Your task to perform on an android device: open app "Facebook" (install if not already installed), go to login, and select forgot password Image 0: 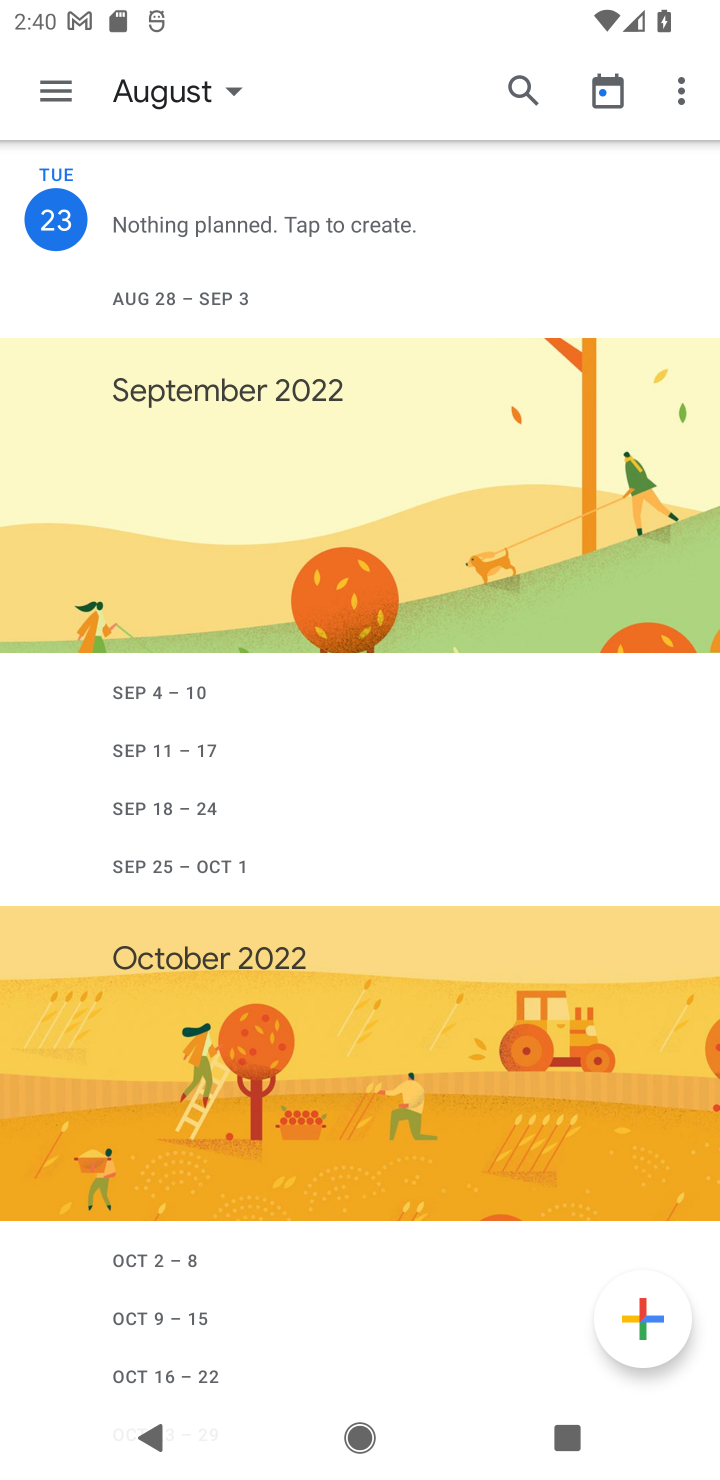
Step 0: press home button
Your task to perform on an android device: open app "Facebook" (install if not already installed), go to login, and select forgot password Image 1: 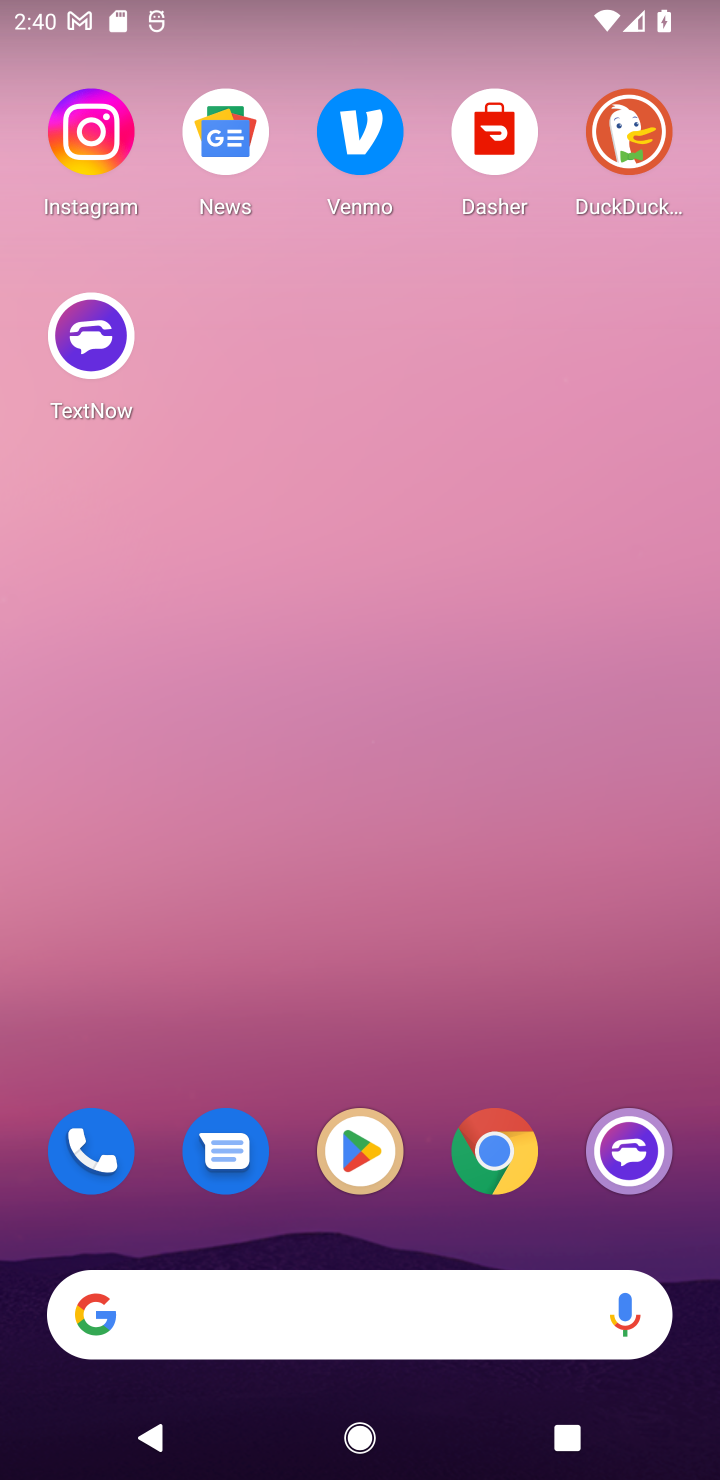
Step 1: click (368, 1140)
Your task to perform on an android device: open app "Facebook" (install if not already installed), go to login, and select forgot password Image 2: 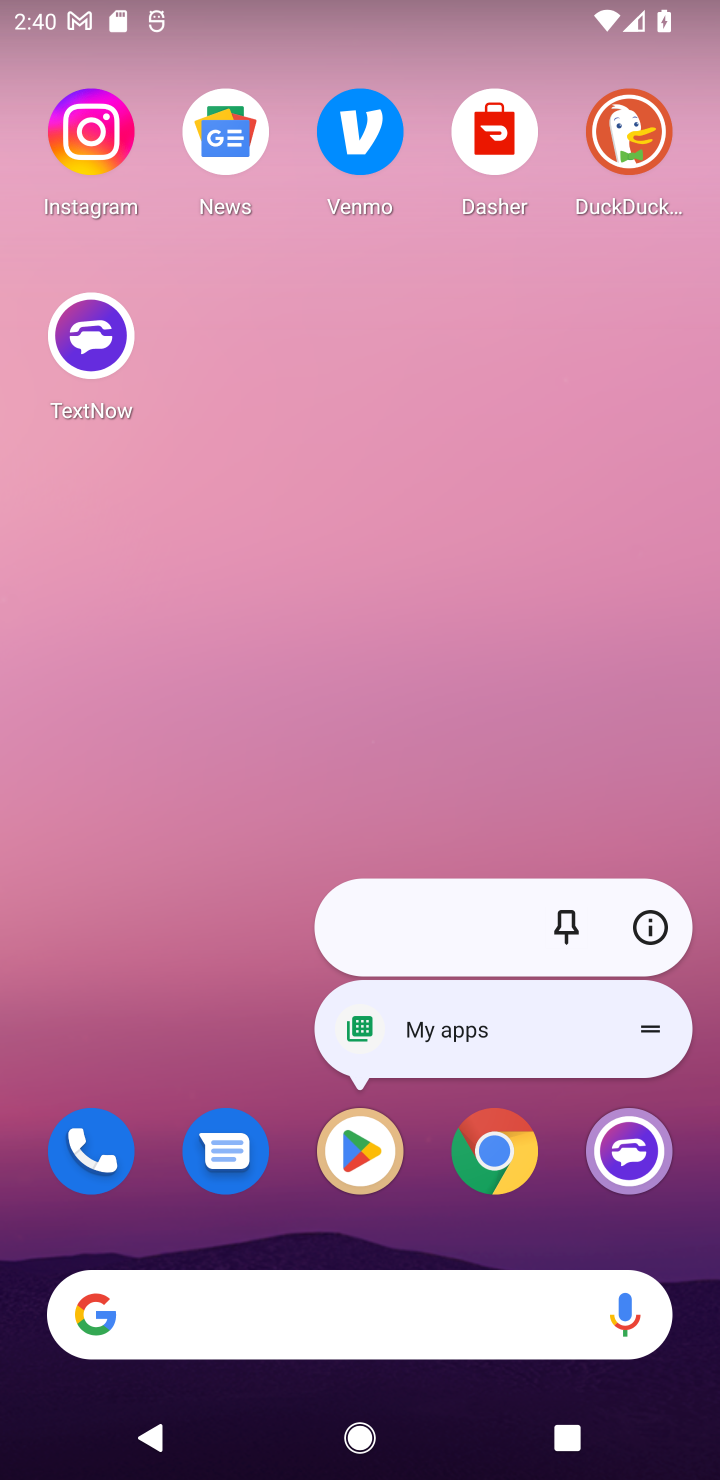
Step 2: click (366, 1141)
Your task to perform on an android device: open app "Facebook" (install if not already installed), go to login, and select forgot password Image 3: 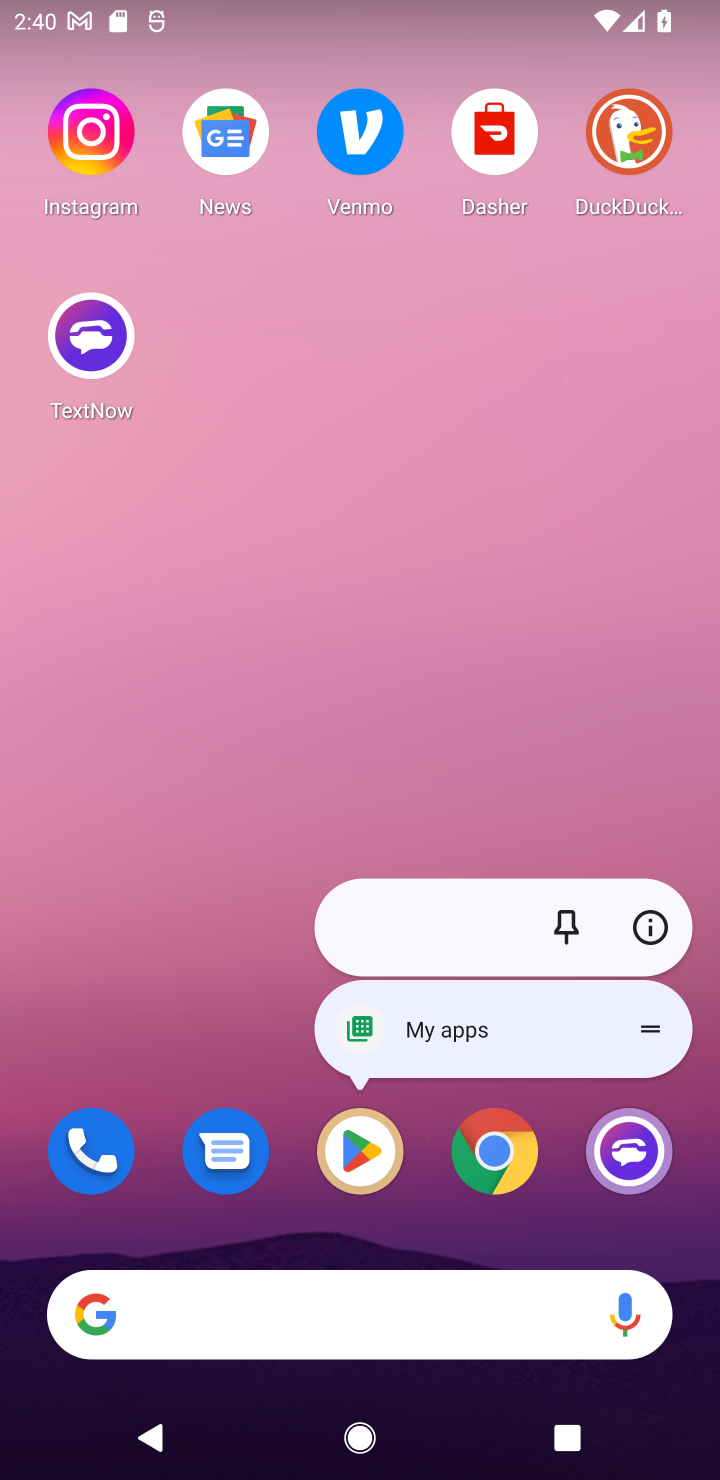
Step 3: click (356, 1149)
Your task to perform on an android device: open app "Facebook" (install if not already installed), go to login, and select forgot password Image 4: 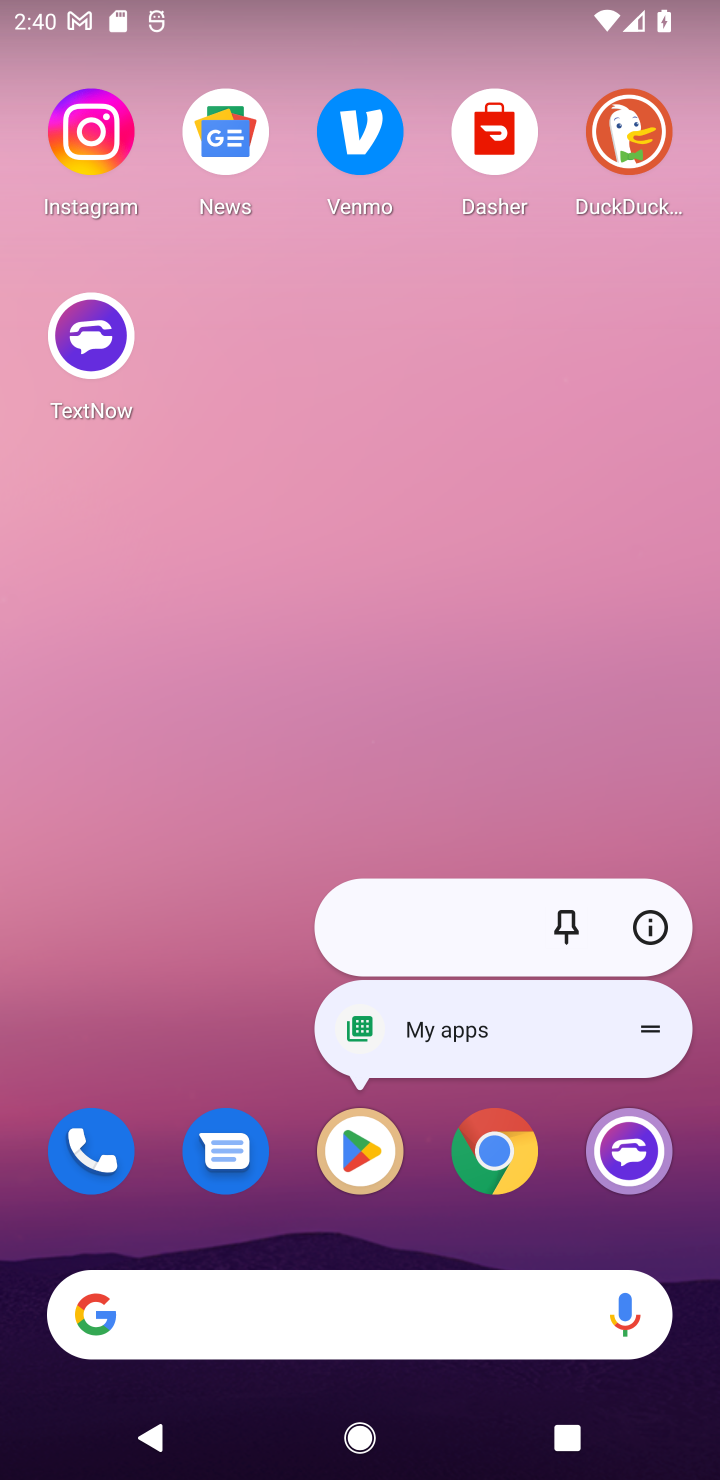
Step 4: click (356, 1153)
Your task to perform on an android device: open app "Facebook" (install if not already installed), go to login, and select forgot password Image 5: 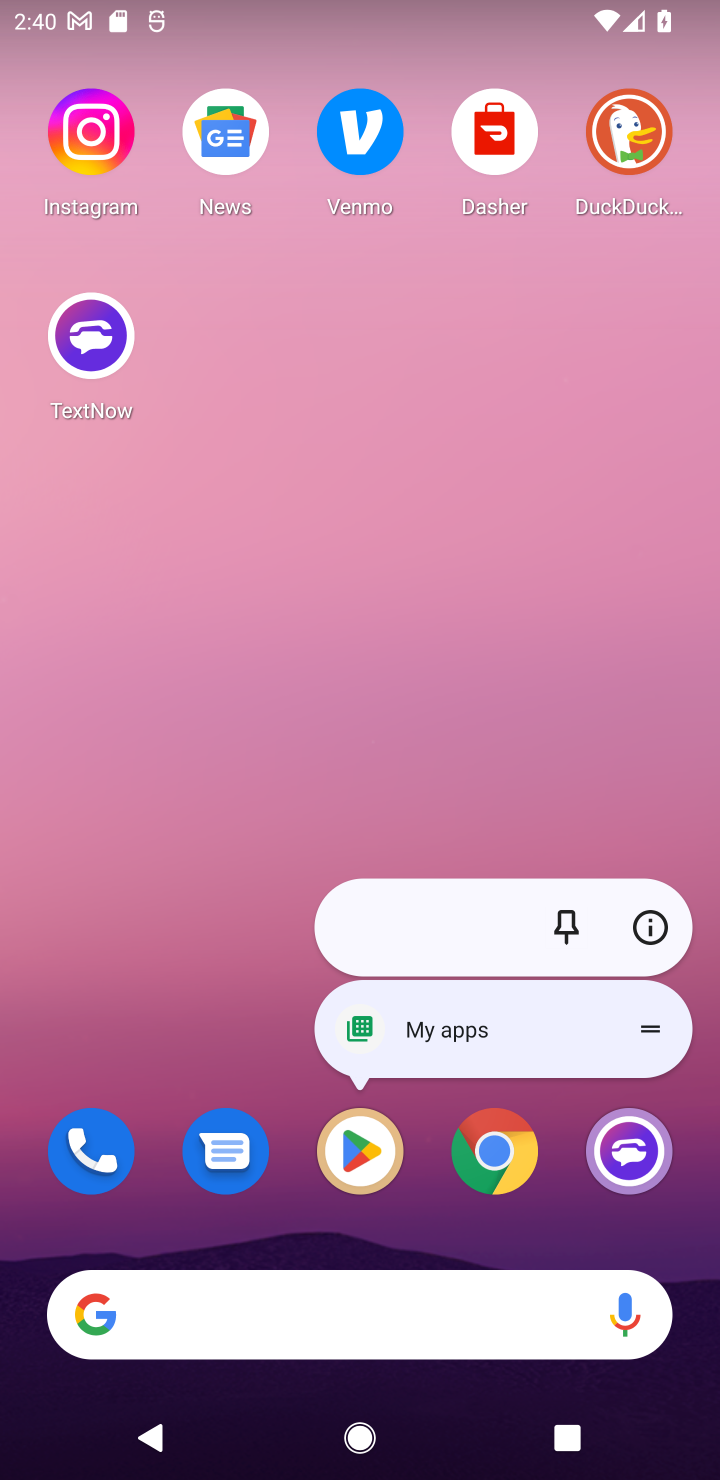
Step 5: click (356, 1153)
Your task to perform on an android device: open app "Facebook" (install if not already installed), go to login, and select forgot password Image 6: 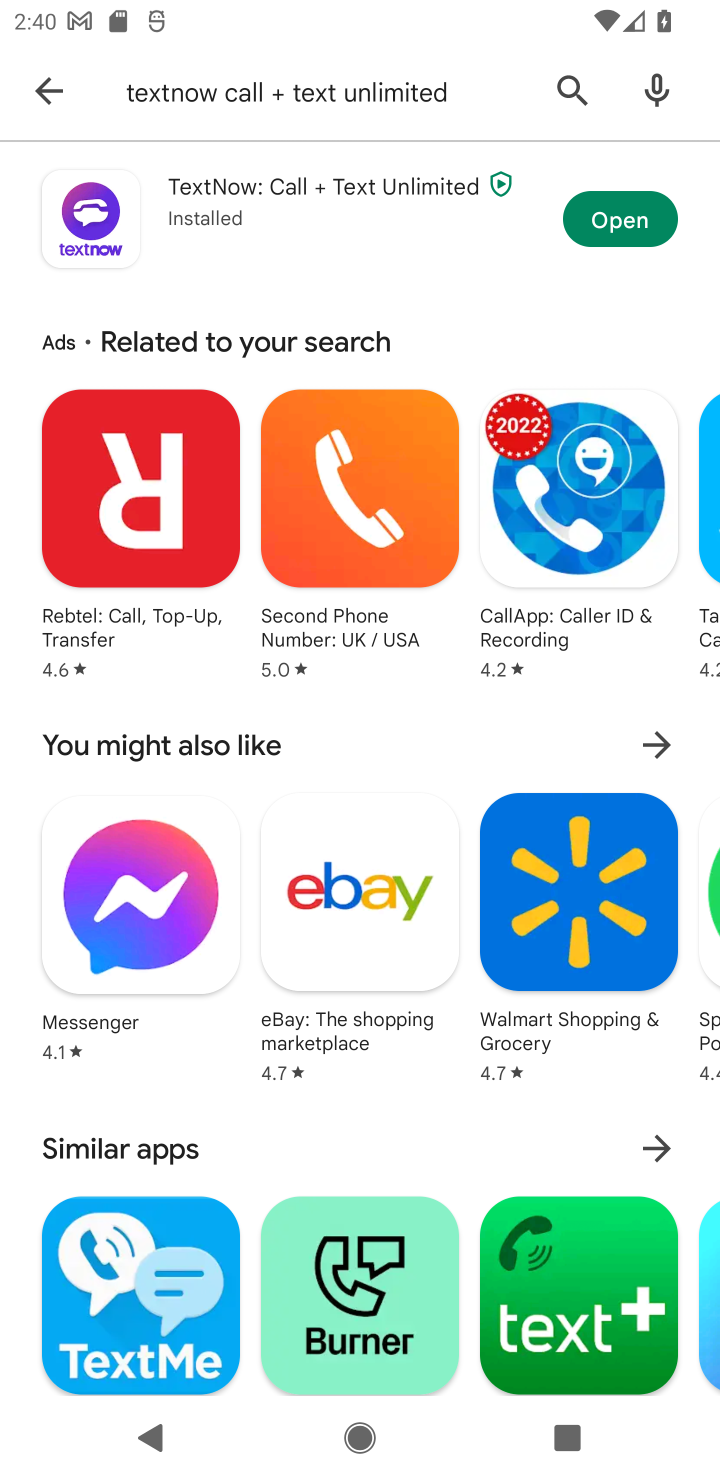
Step 6: click (560, 83)
Your task to perform on an android device: open app "Facebook" (install if not already installed), go to login, and select forgot password Image 7: 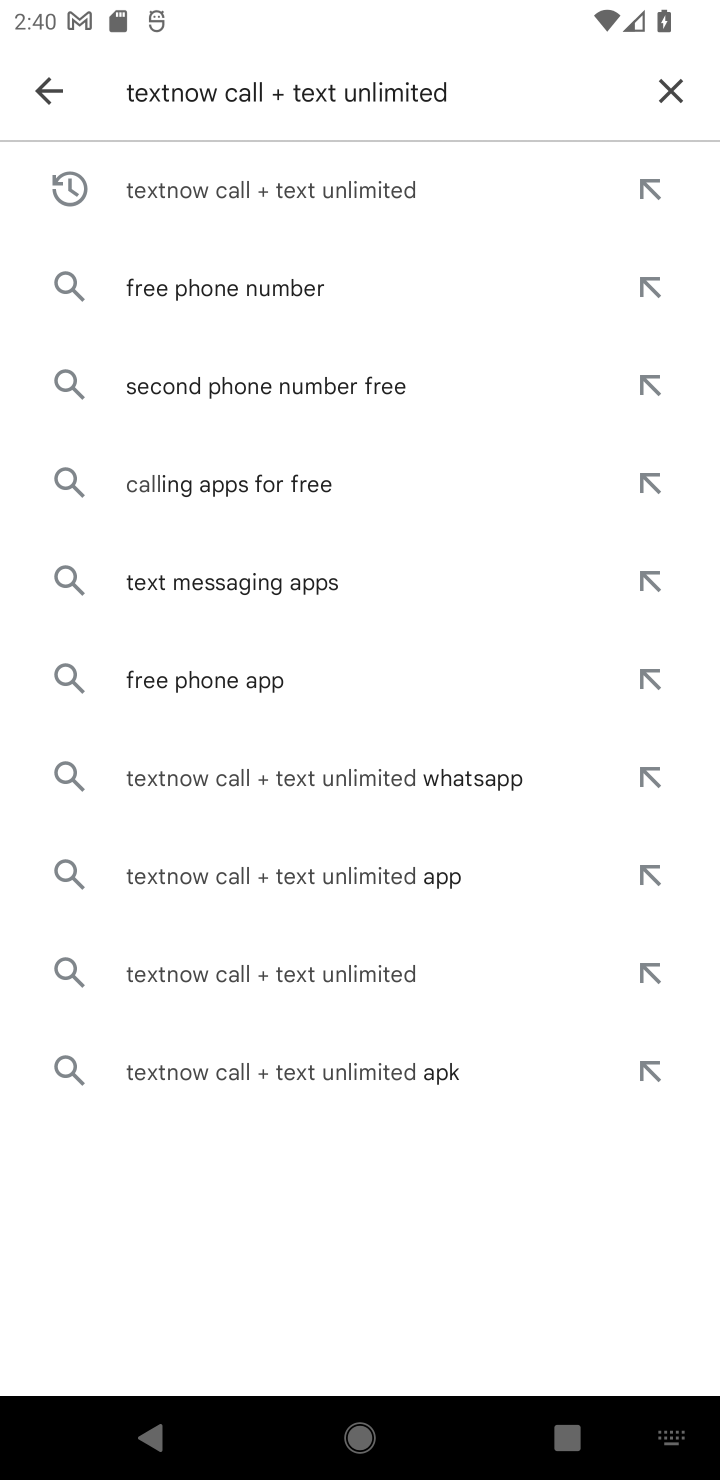
Step 7: click (676, 75)
Your task to perform on an android device: open app "Facebook" (install if not already installed), go to login, and select forgot password Image 8: 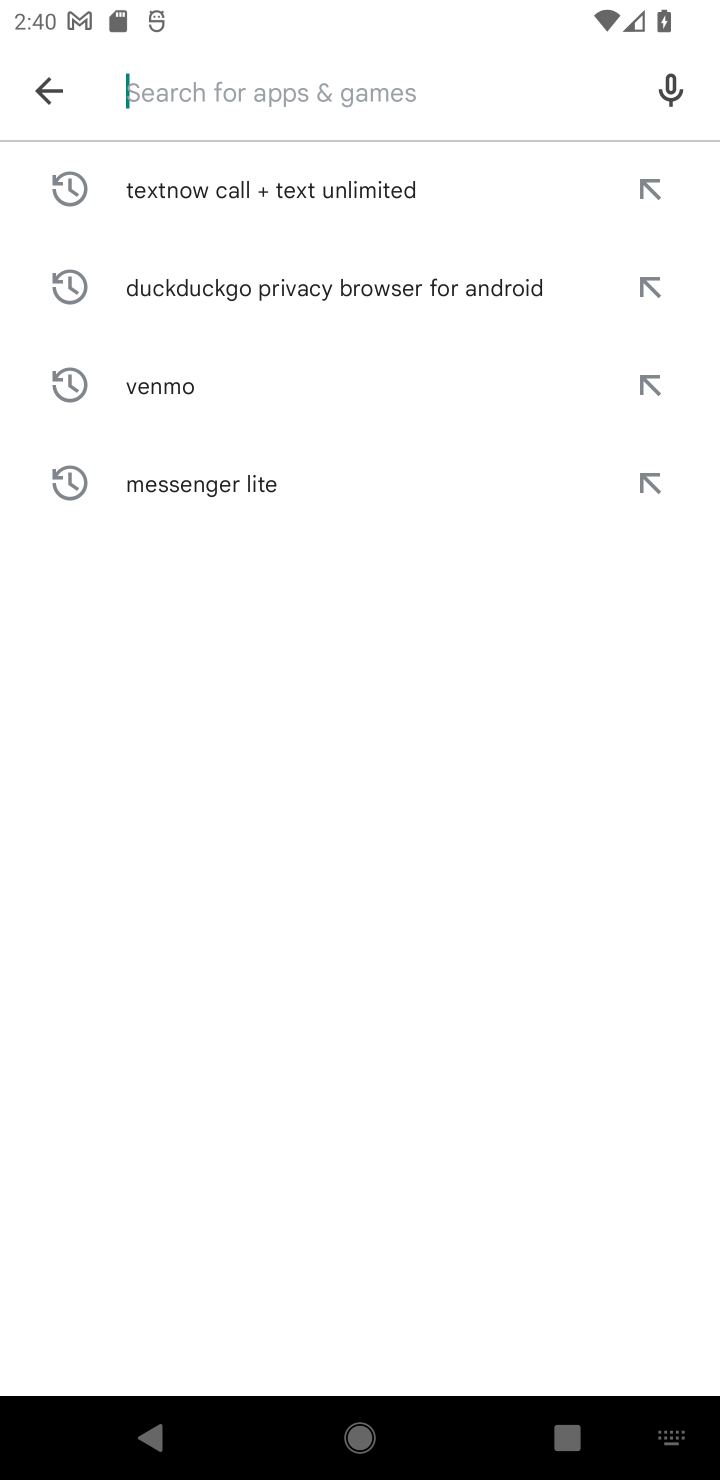
Step 8: type "Facebook"
Your task to perform on an android device: open app "Facebook" (install if not already installed), go to login, and select forgot password Image 9: 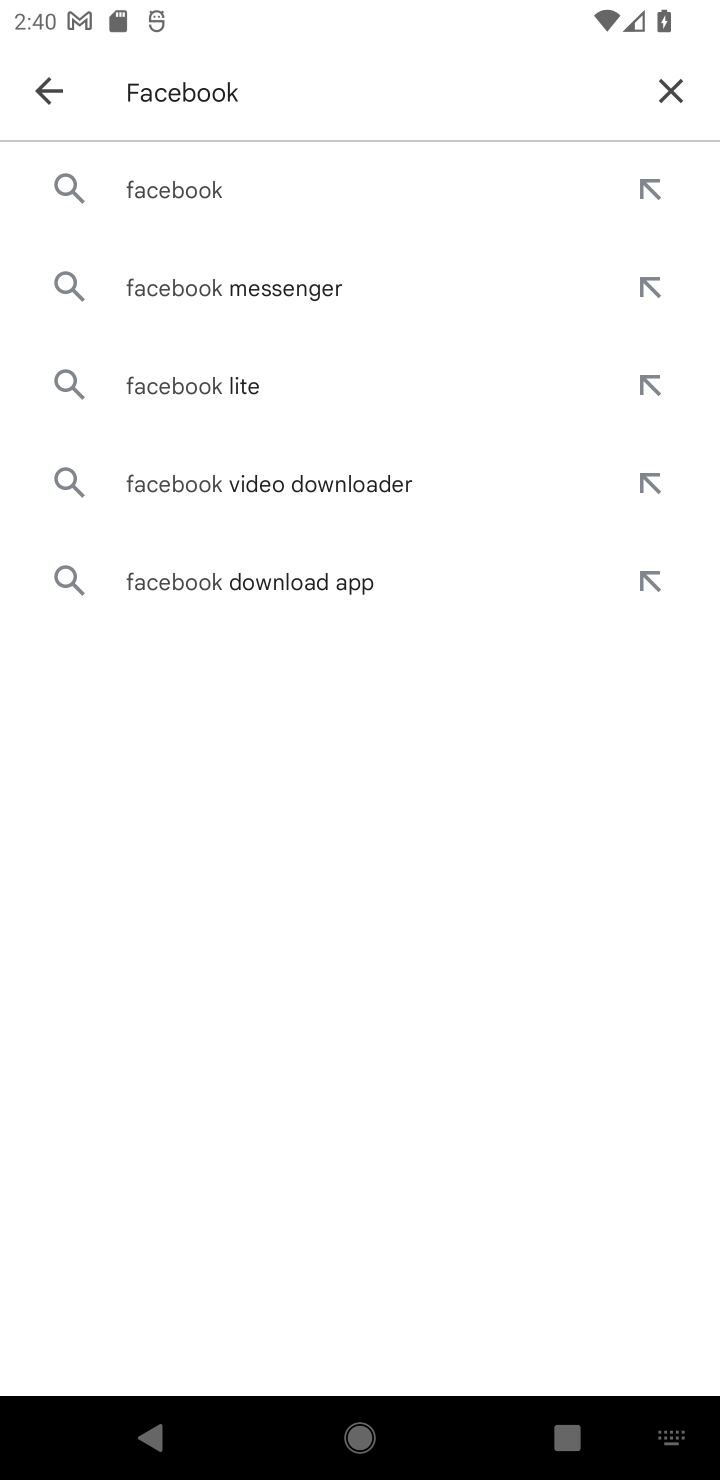
Step 9: click (173, 182)
Your task to perform on an android device: open app "Facebook" (install if not already installed), go to login, and select forgot password Image 10: 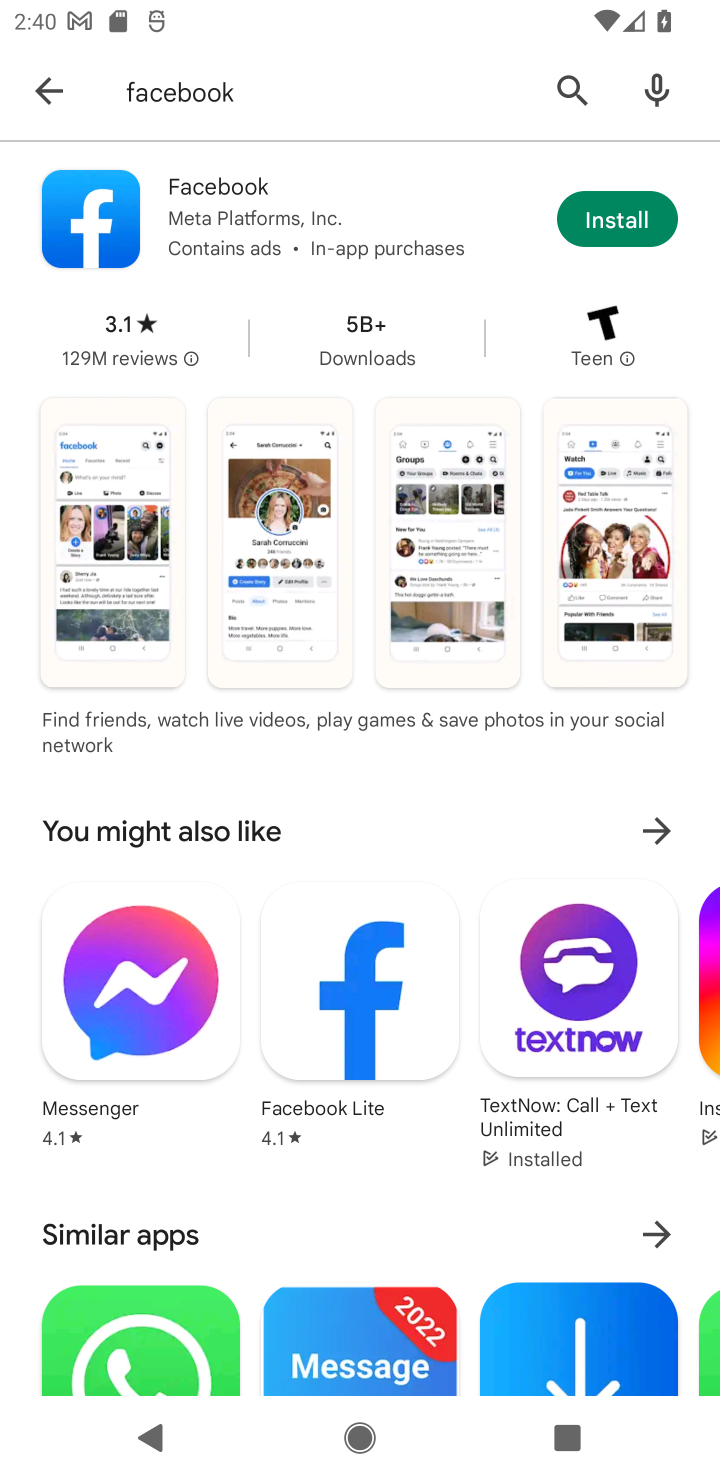
Step 10: click (629, 220)
Your task to perform on an android device: open app "Facebook" (install if not already installed), go to login, and select forgot password Image 11: 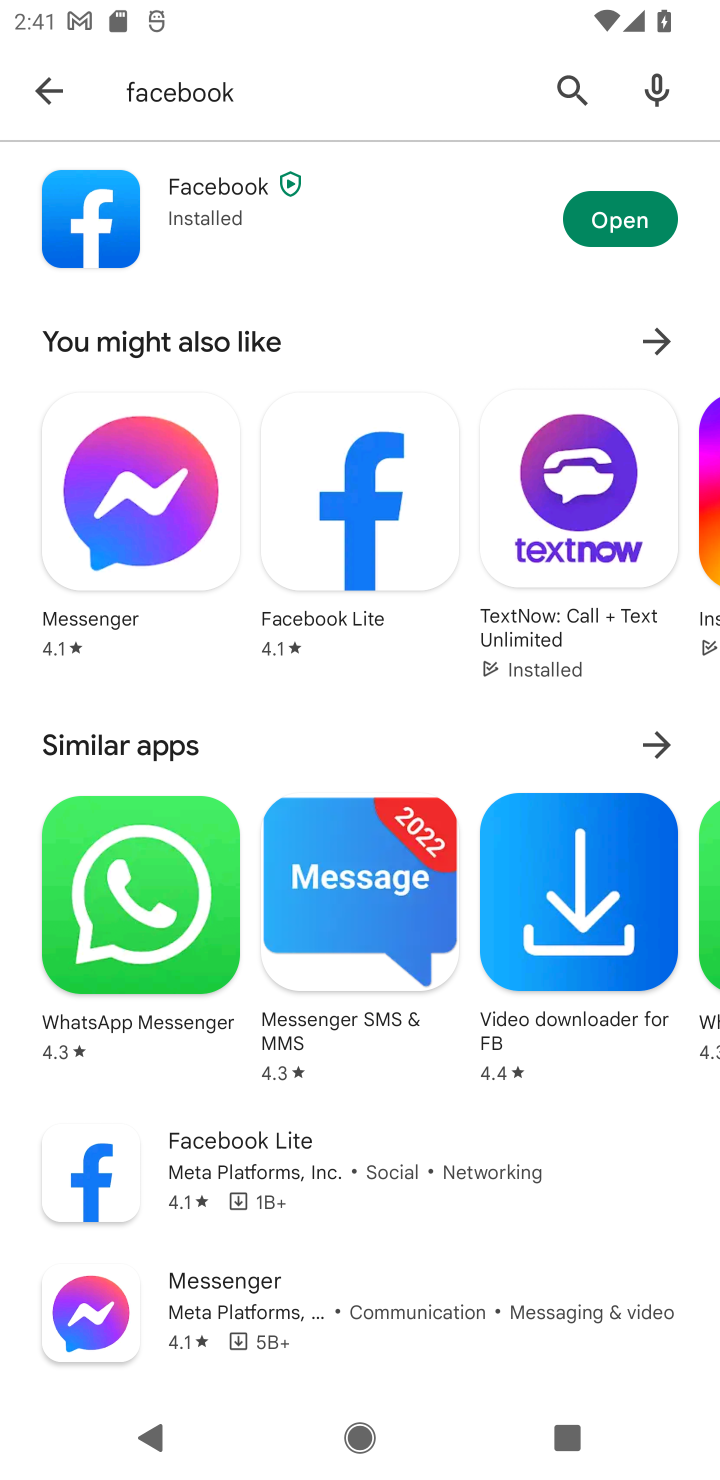
Step 11: click (618, 215)
Your task to perform on an android device: open app "Facebook" (install if not already installed), go to login, and select forgot password Image 12: 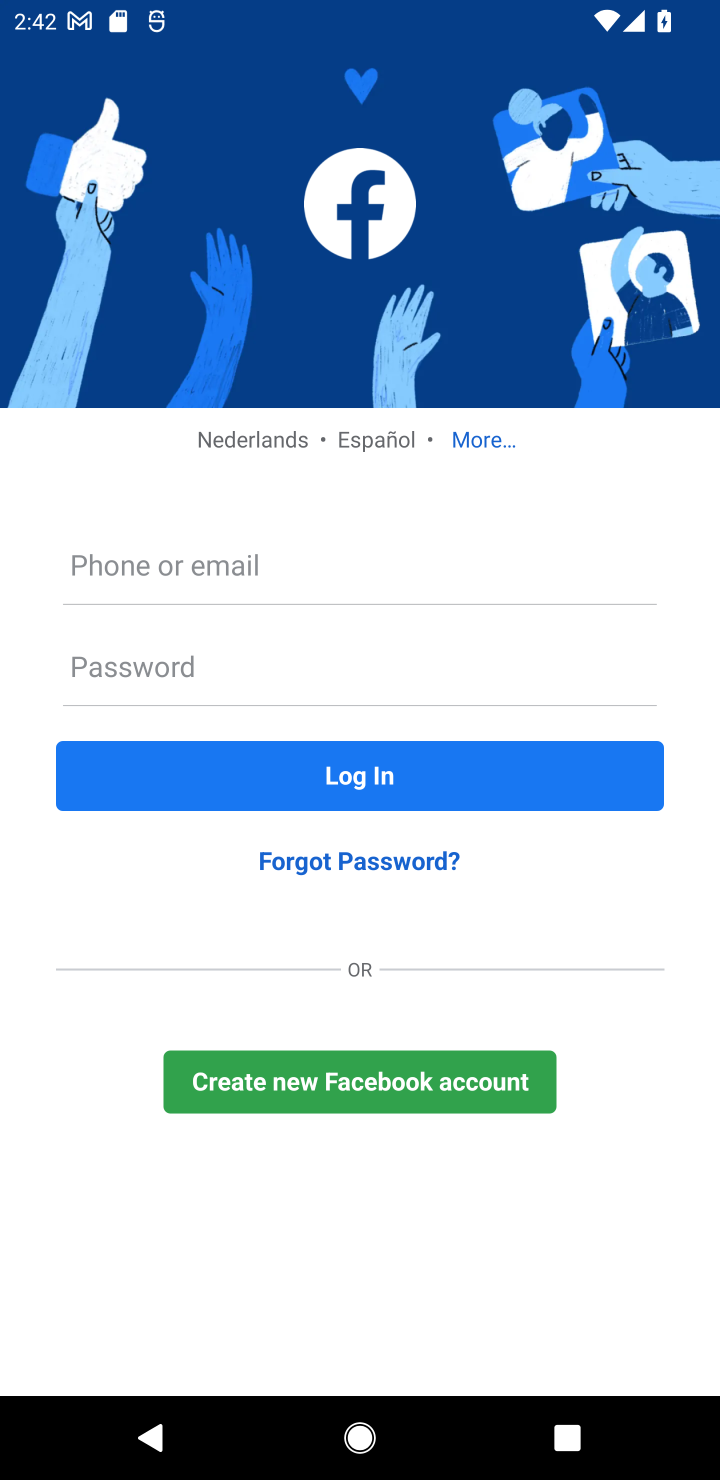
Step 12: click (348, 856)
Your task to perform on an android device: open app "Facebook" (install if not already installed), go to login, and select forgot password Image 13: 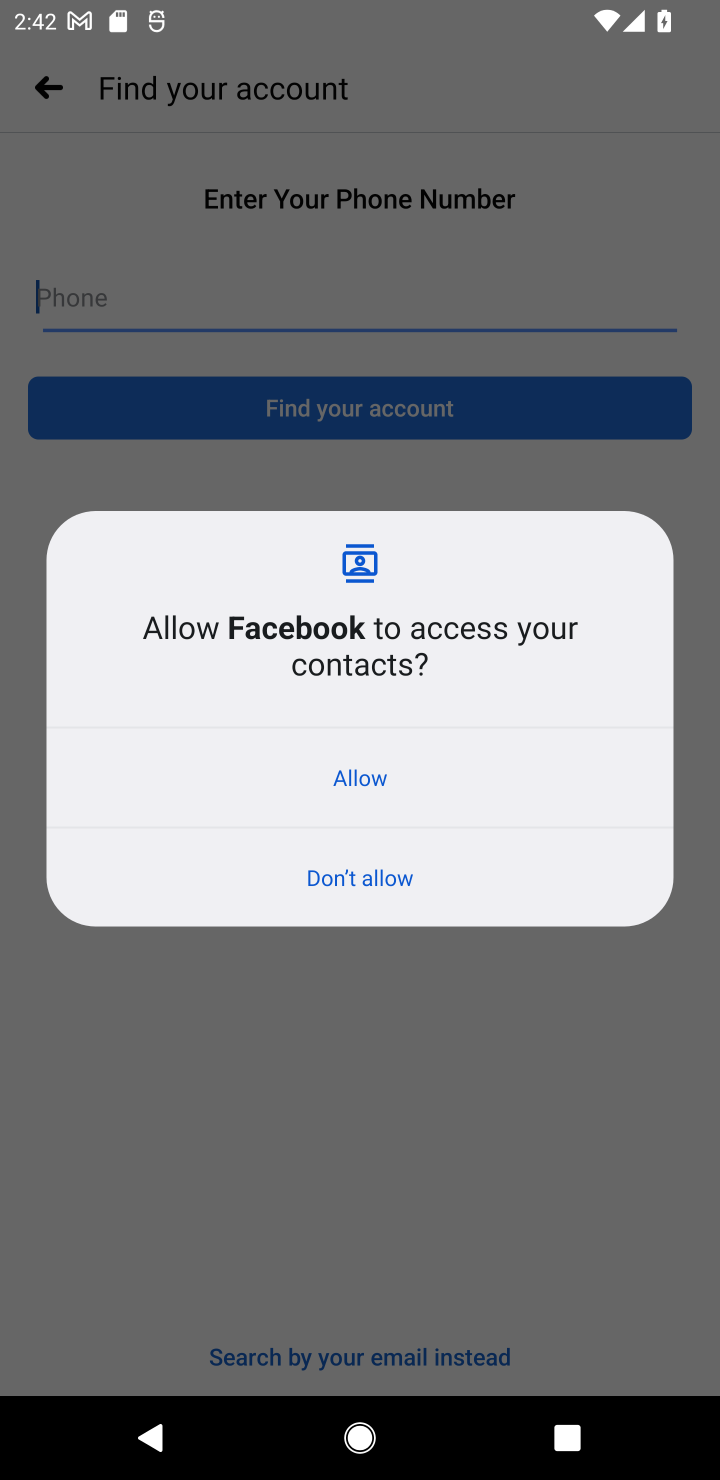
Step 13: click (367, 793)
Your task to perform on an android device: open app "Facebook" (install if not already installed), go to login, and select forgot password Image 14: 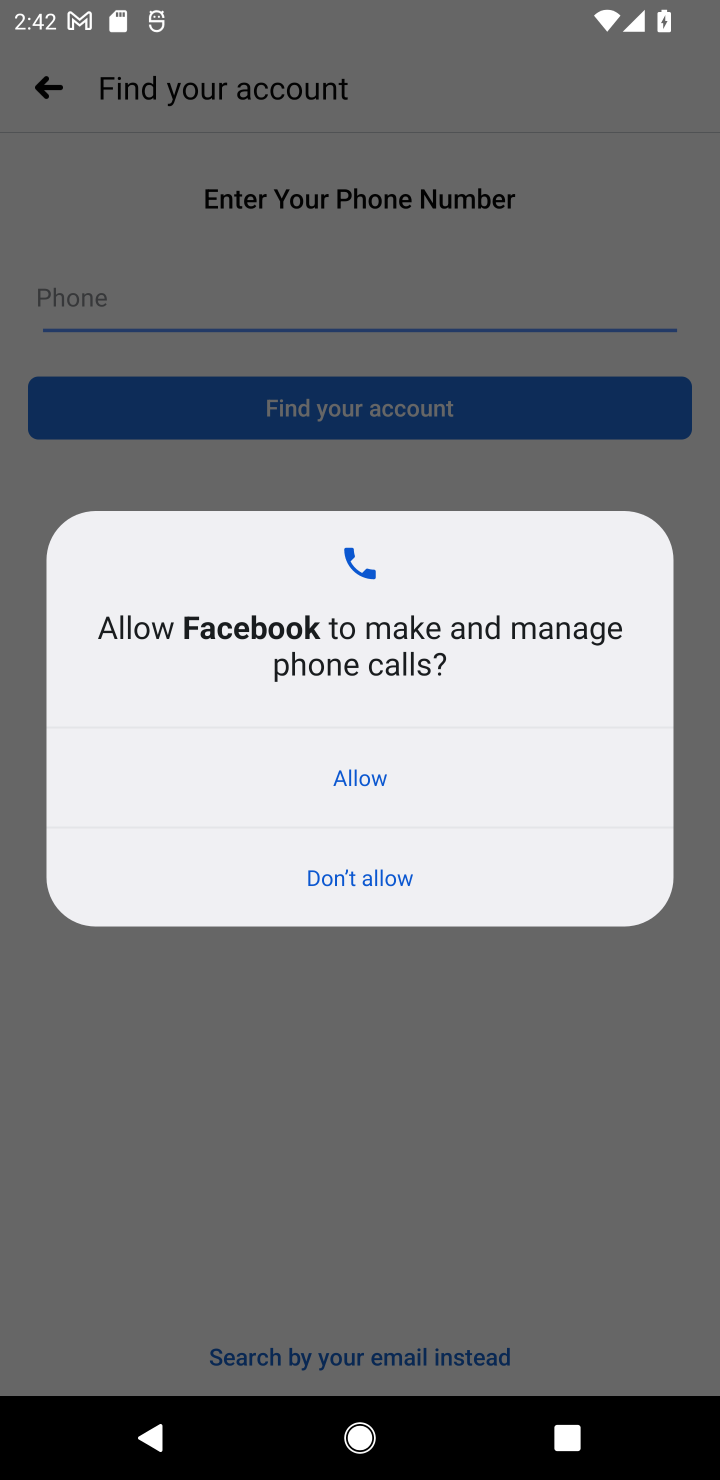
Step 14: task complete